Your task to perform on an android device: all mails in gmail Image 0: 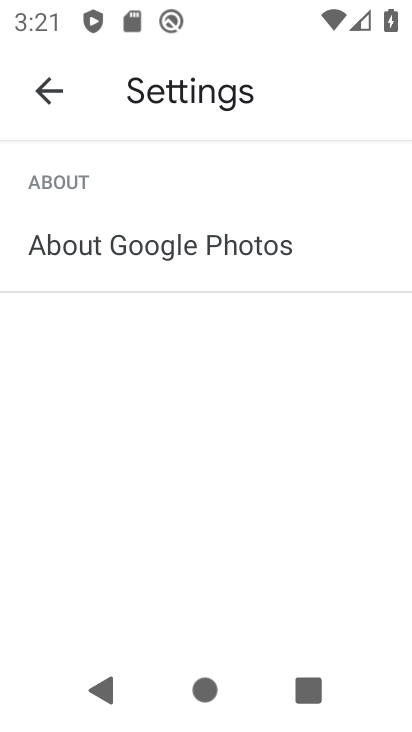
Step 0: press back button
Your task to perform on an android device: all mails in gmail Image 1: 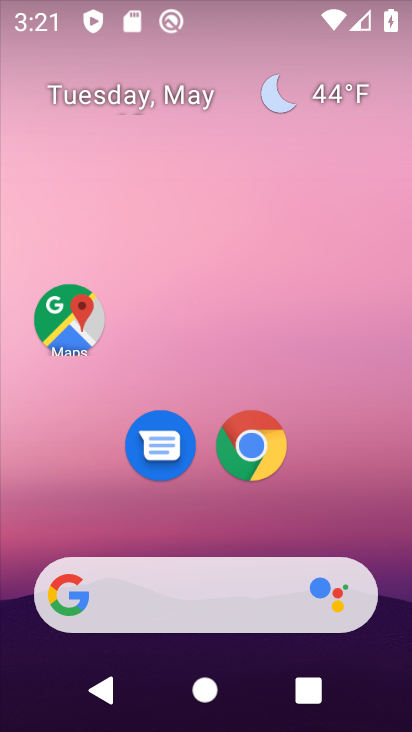
Step 1: drag from (218, 488) to (289, 29)
Your task to perform on an android device: all mails in gmail Image 2: 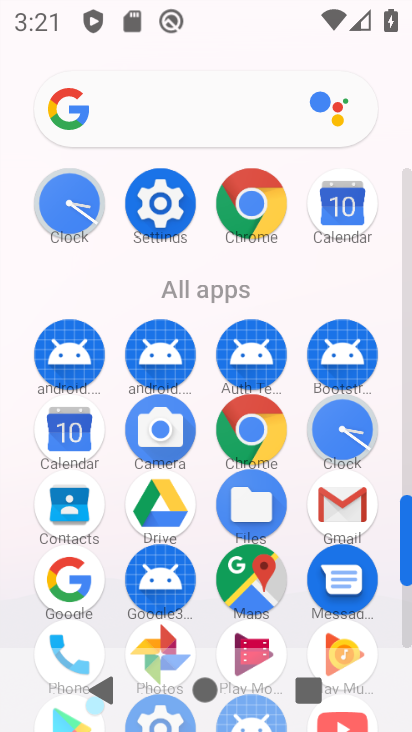
Step 2: click (337, 507)
Your task to perform on an android device: all mails in gmail Image 3: 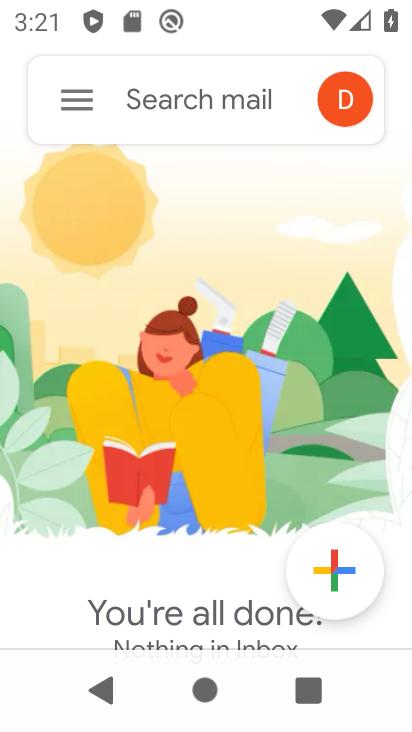
Step 3: click (94, 110)
Your task to perform on an android device: all mails in gmail Image 4: 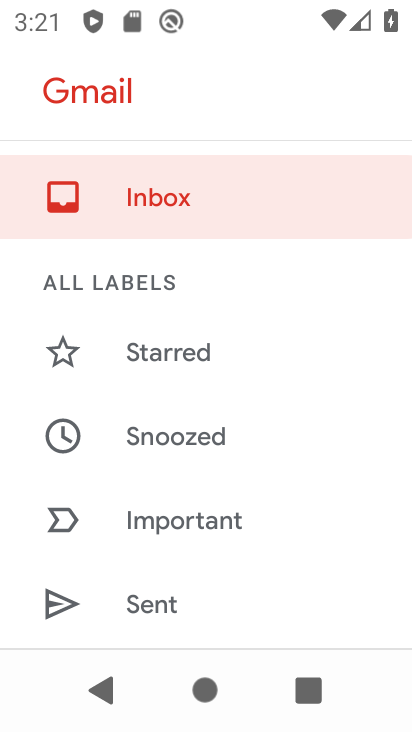
Step 4: drag from (204, 564) to (278, 143)
Your task to perform on an android device: all mails in gmail Image 5: 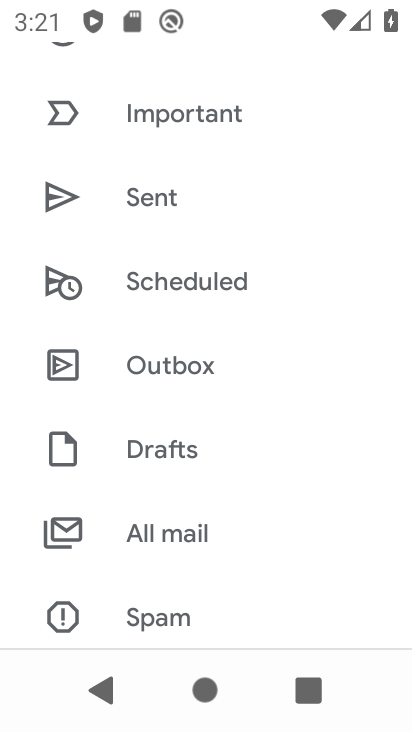
Step 5: click (110, 529)
Your task to perform on an android device: all mails in gmail Image 6: 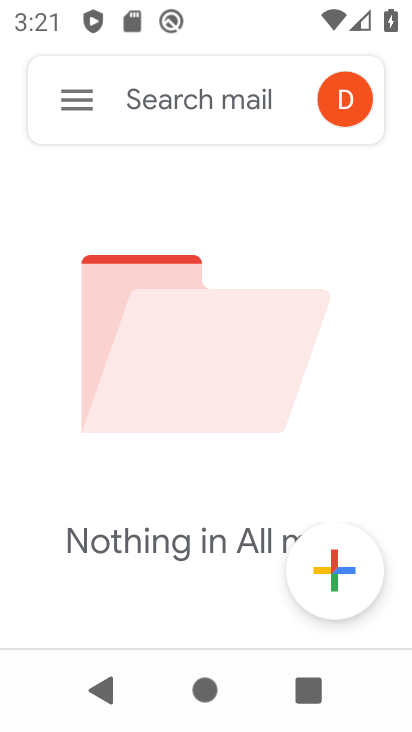
Step 6: task complete